Your task to perform on an android device: Open settings on Google Maps Image 0: 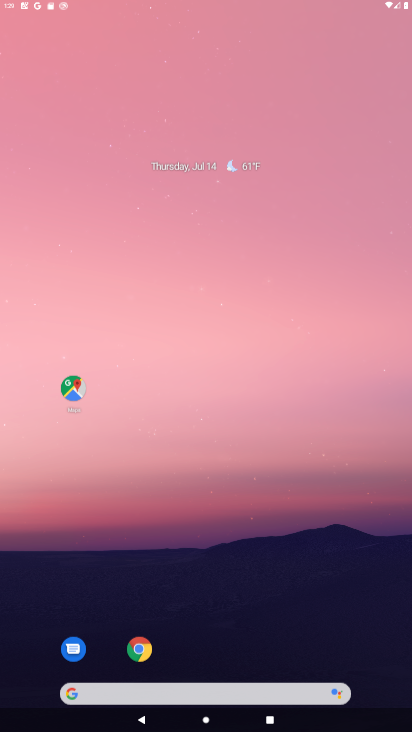
Step 0: press home button
Your task to perform on an android device: Open settings on Google Maps Image 1: 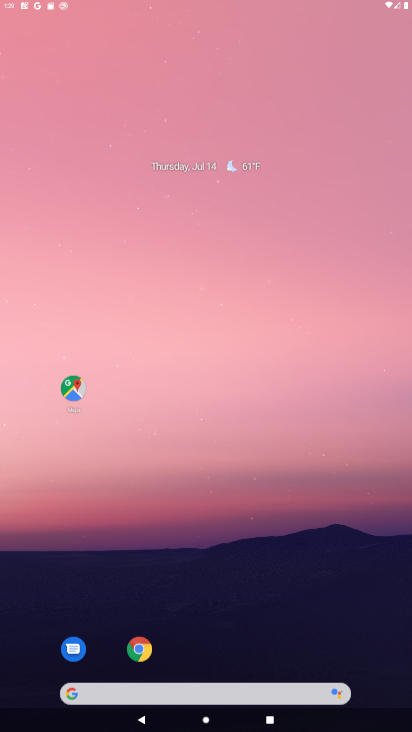
Step 1: drag from (224, 697) to (233, 457)
Your task to perform on an android device: Open settings on Google Maps Image 2: 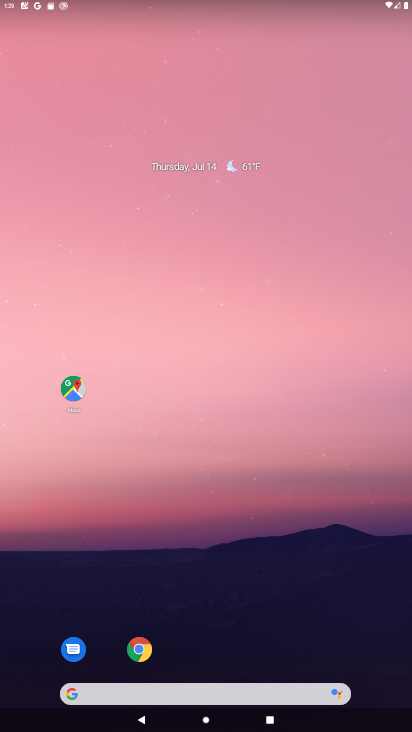
Step 2: drag from (225, 592) to (224, 220)
Your task to perform on an android device: Open settings on Google Maps Image 3: 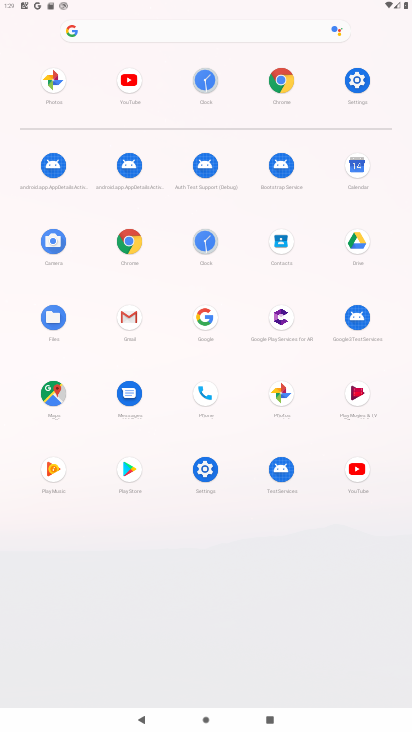
Step 3: click (52, 389)
Your task to perform on an android device: Open settings on Google Maps Image 4: 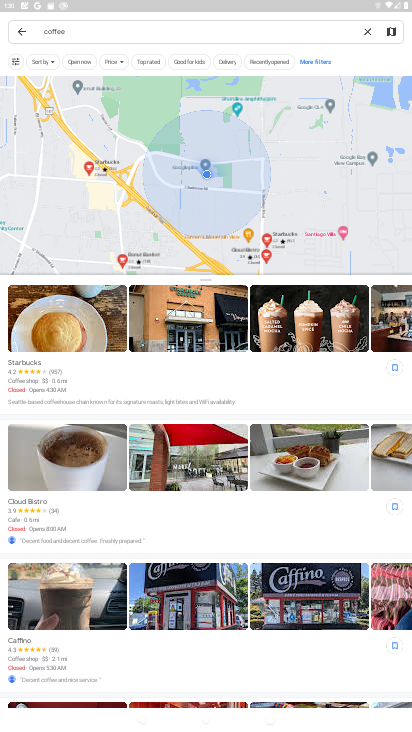
Step 4: press back button
Your task to perform on an android device: Open settings on Google Maps Image 5: 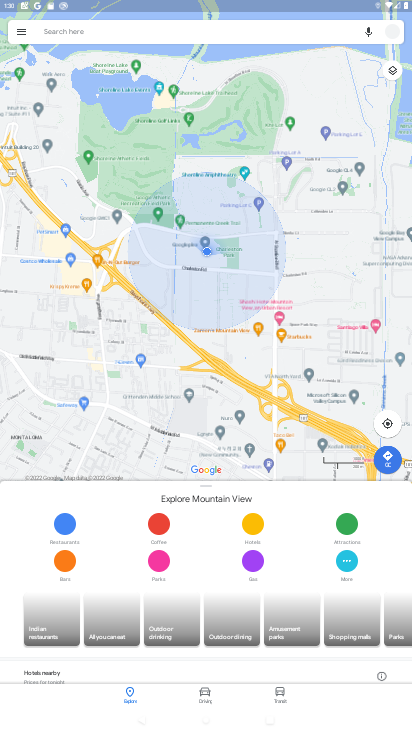
Step 5: click (19, 32)
Your task to perform on an android device: Open settings on Google Maps Image 6: 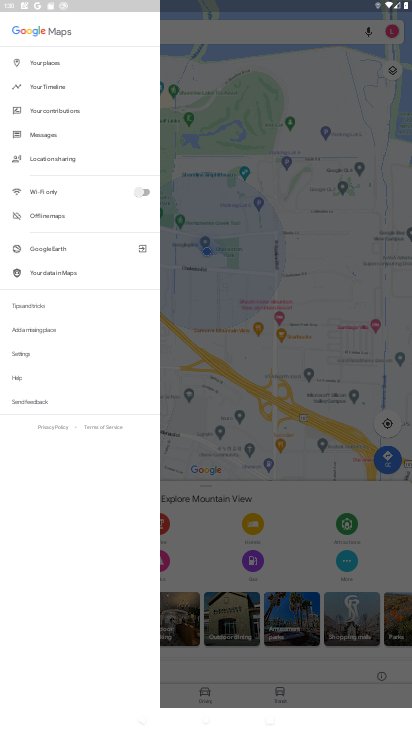
Step 6: click (63, 89)
Your task to perform on an android device: Open settings on Google Maps Image 7: 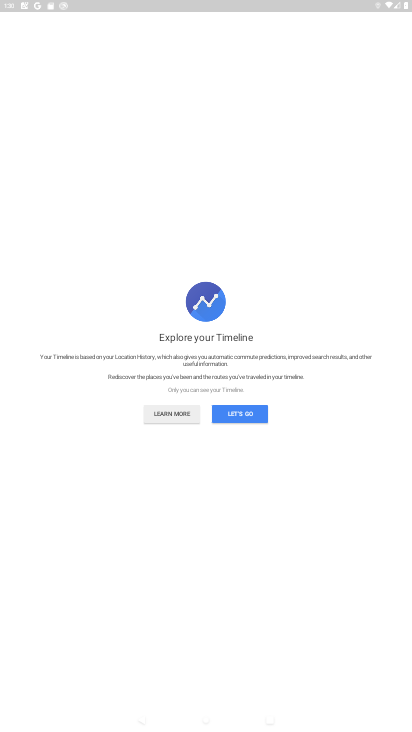
Step 7: click (230, 402)
Your task to perform on an android device: Open settings on Google Maps Image 8: 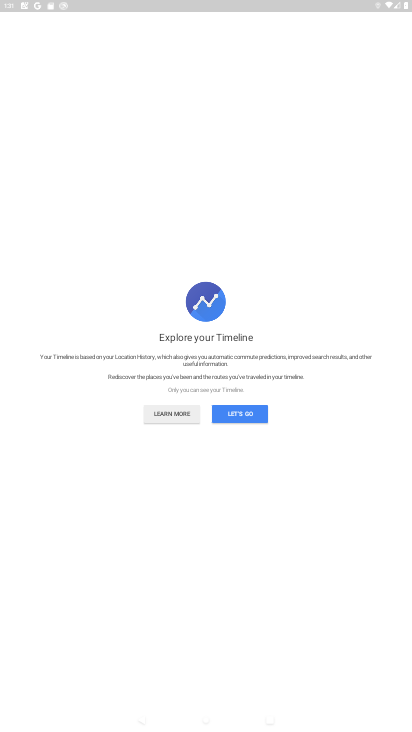
Step 8: click (245, 406)
Your task to perform on an android device: Open settings on Google Maps Image 9: 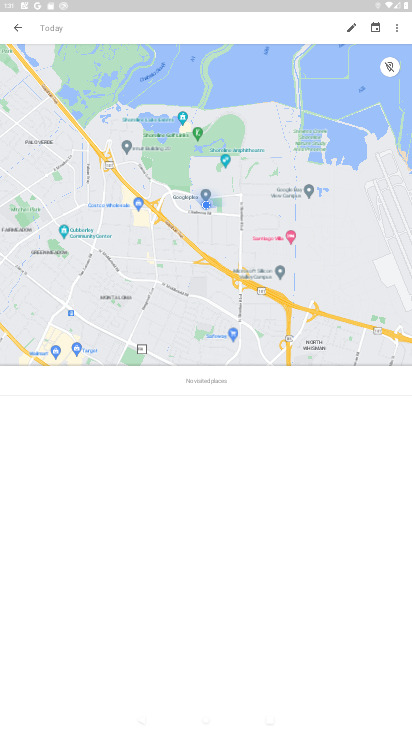
Step 9: task complete